Your task to perform on an android device: set an alarm Image 0: 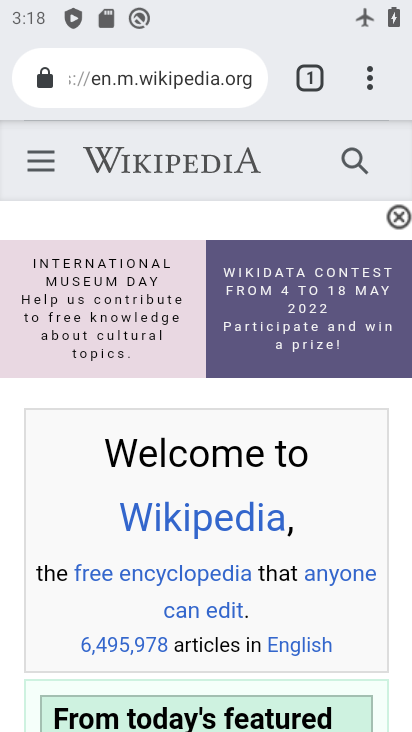
Step 0: press home button
Your task to perform on an android device: set an alarm Image 1: 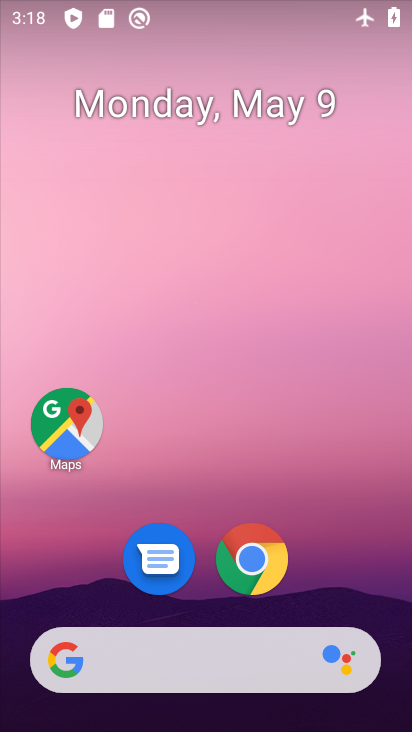
Step 1: drag from (198, 716) to (200, 277)
Your task to perform on an android device: set an alarm Image 2: 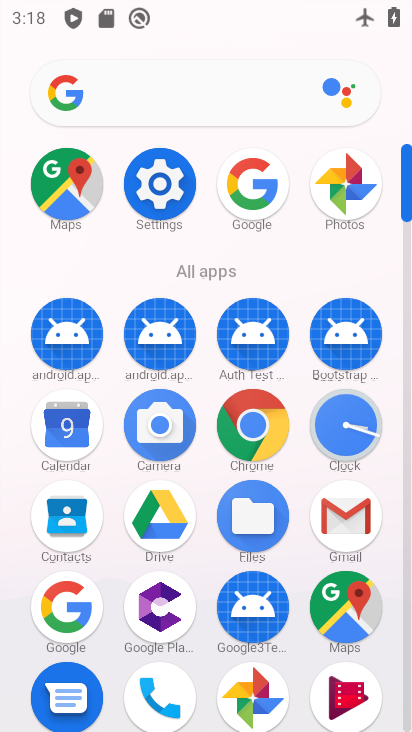
Step 2: click (335, 434)
Your task to perform on an android device: set an alarm Image 3: 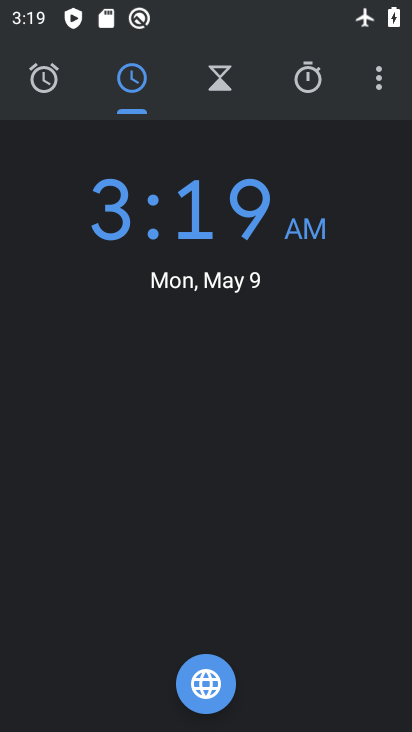
Step 3: click (55, 85)
Your task to perform on an android device: set an alarm Image 4: 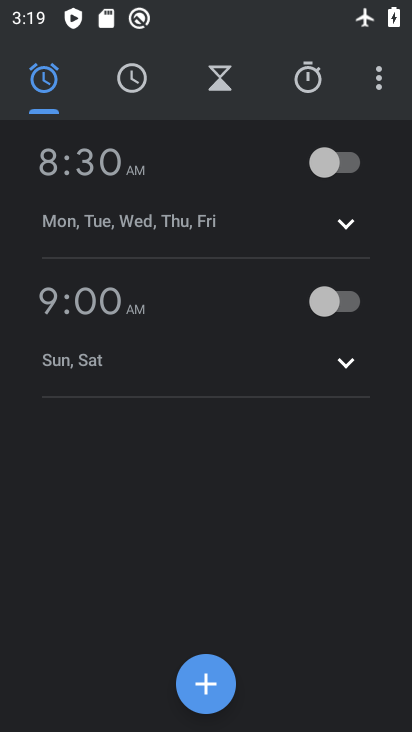
Step 4: click (202, 688)
Your task to perform on an android device: set an alarm Image 5: 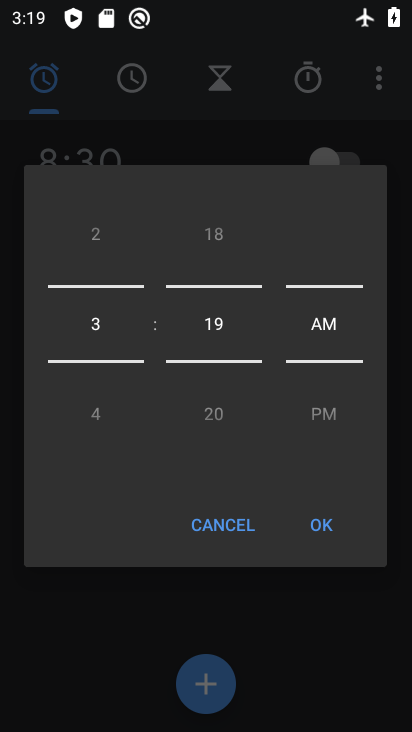
Step 5: drag from (222, 419) to (221, 173)
Your task to perform on an android device: set an alarm Image 6: 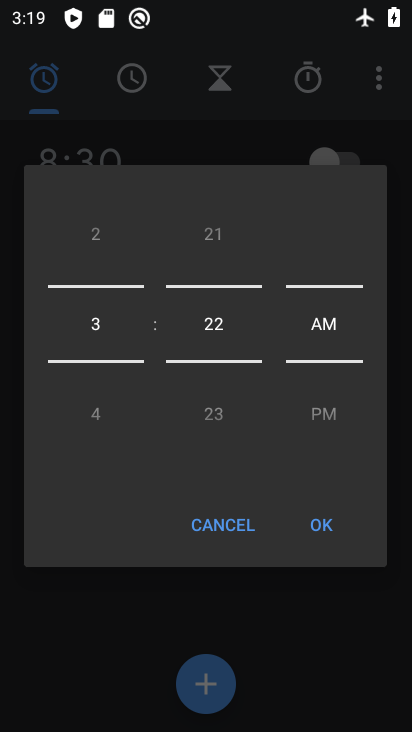
Step 6: drag from (100, 418) to (108, 175)
Your task to perform on an android device: set an alarm Image 7: 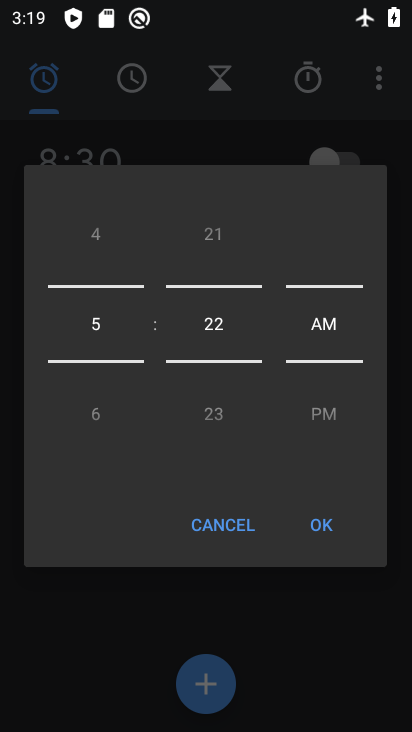
Step 7: drag from (311, 415) to (315, 202)
Your task to perform on an android device: set an alarm Image 8: 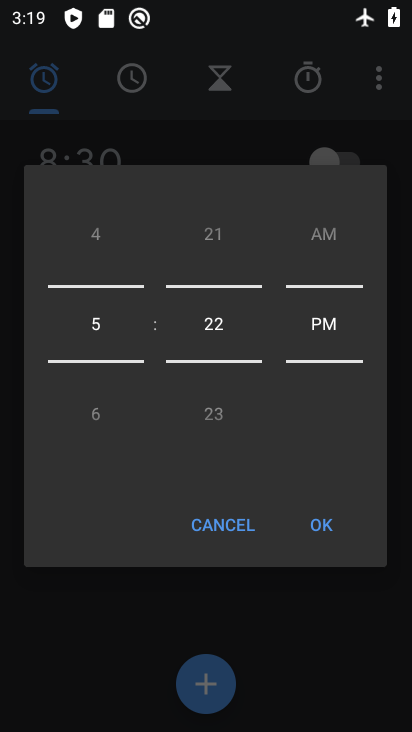
Step 8: click (325, 525)
Your task to perform on an android device: set an alarm Image 9: 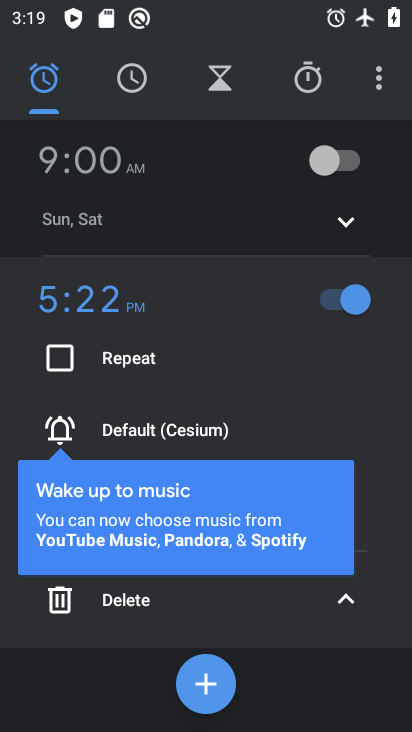
Step 9: task complete